Your task to perform on an android device: install app "Google Home" Image 0: 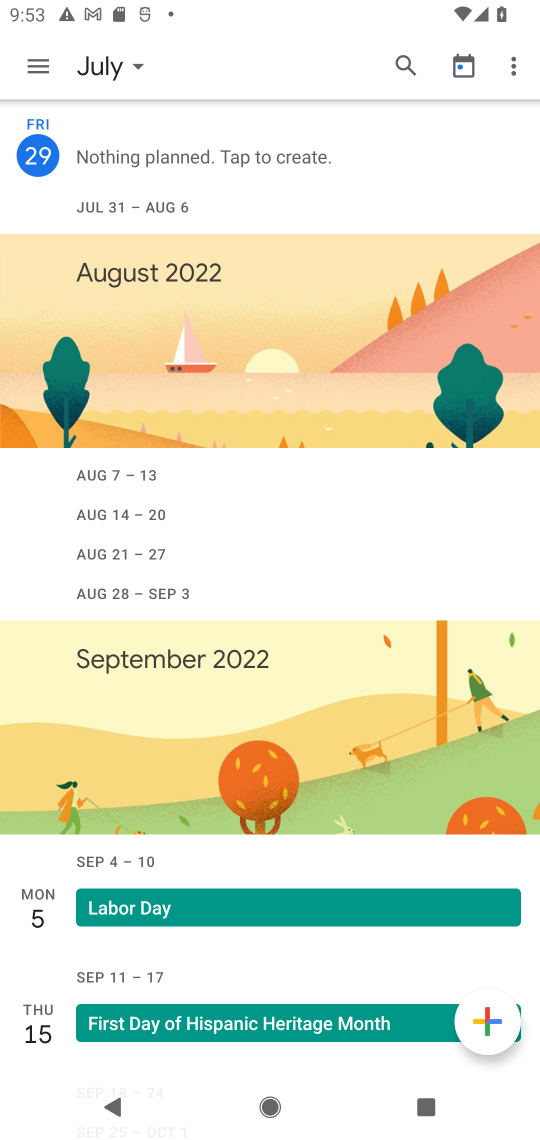
Step 0: press home button
Your task to perform on an android device: install app "Google Home" Image 1: 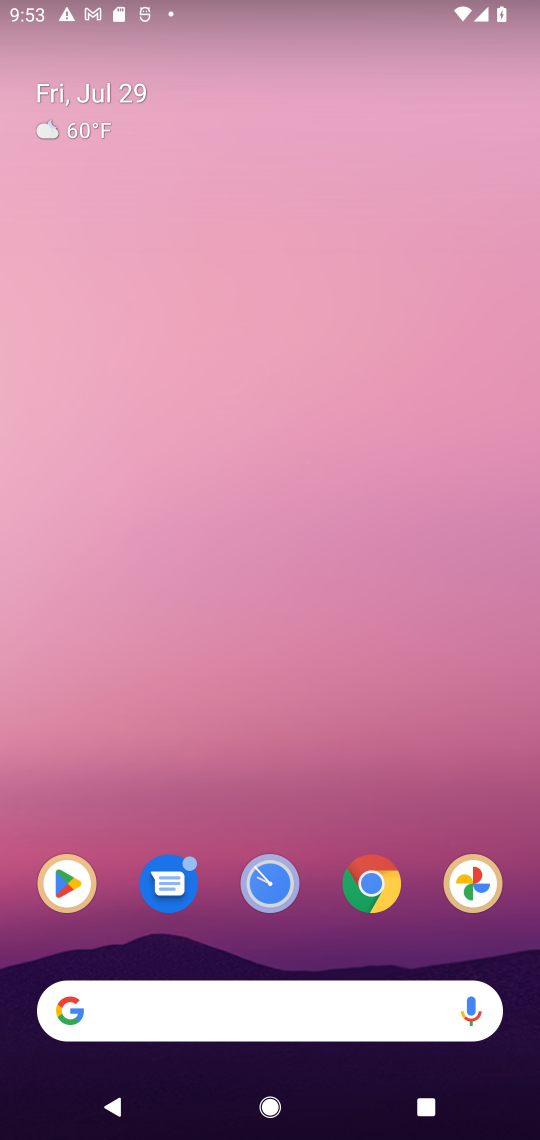
Step 1: click (59, 882)
Your task to perform on an android device: install app "Google Home" Image 2: 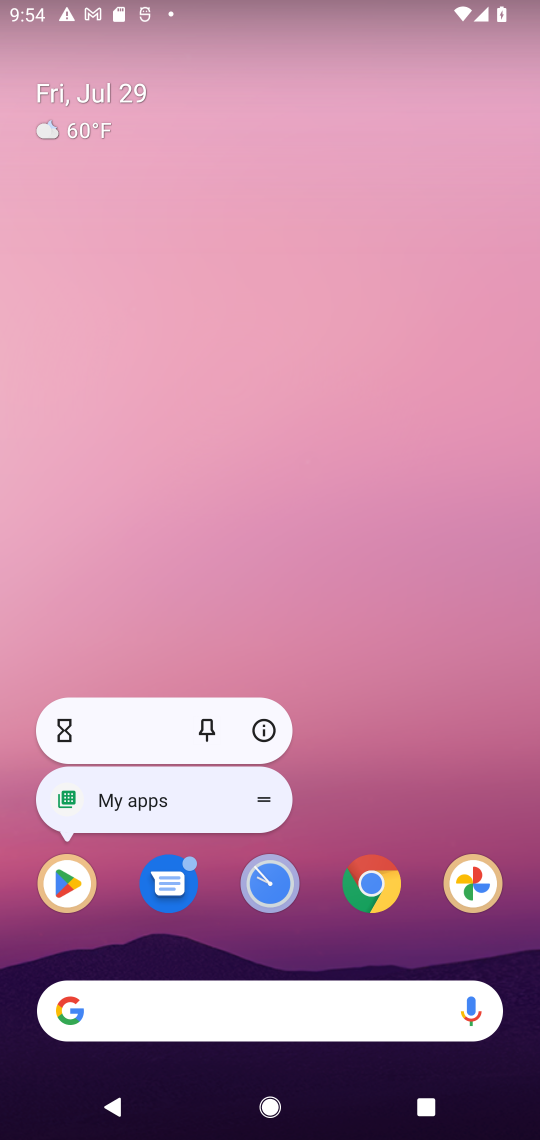
Step 2: click (72, 854)
Your task to perform on an android device: install app "Google Home" Image 3: 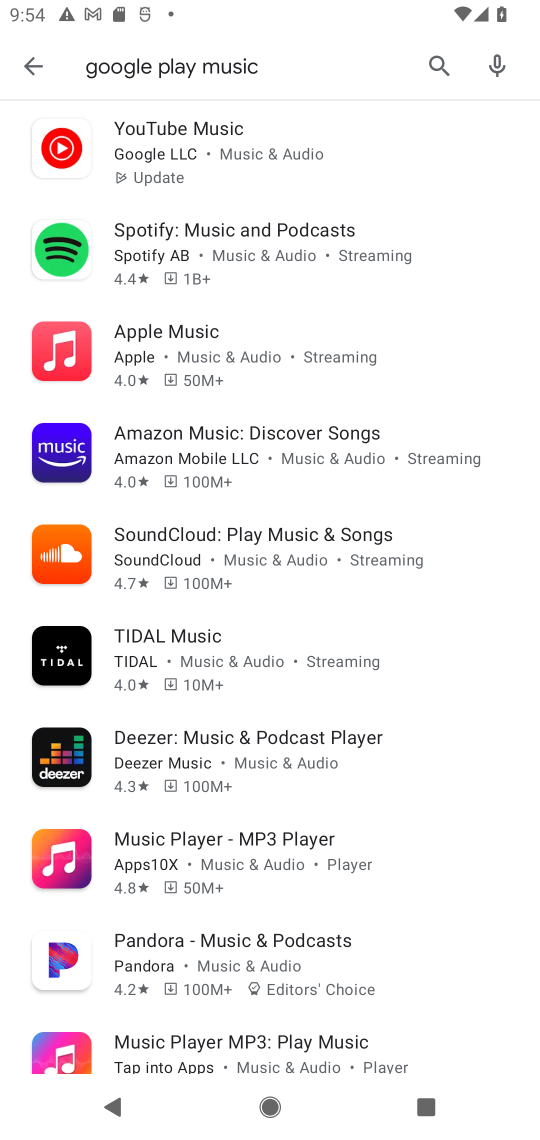
Step 3: click (282, 67)
Your task to perform on an android device: install app "Google Home" Image 4: 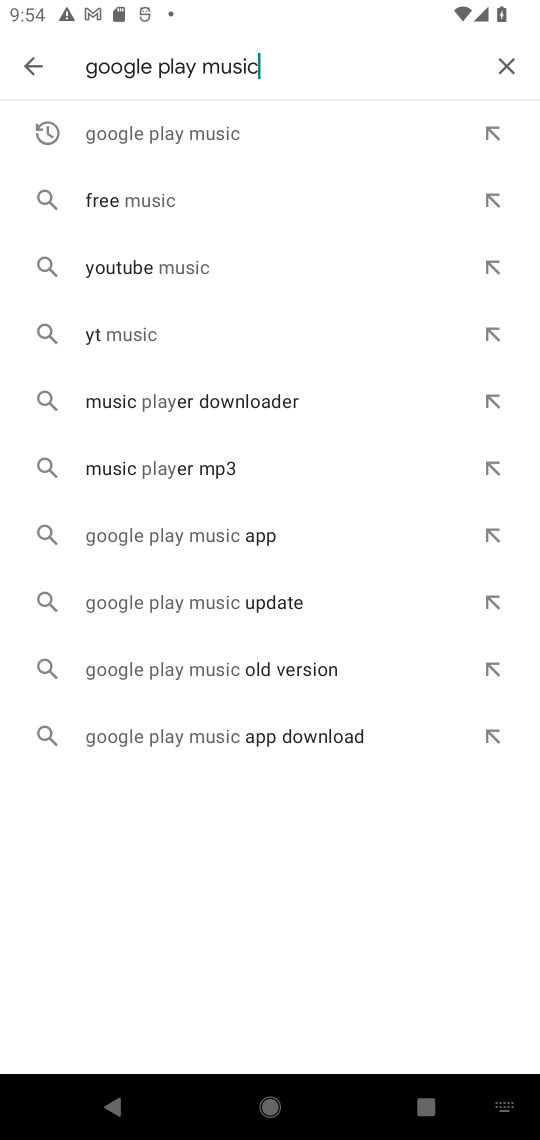
Step 4: click (501, 57)
Your task to perform on an android device: install app "Google Home" Image 5: 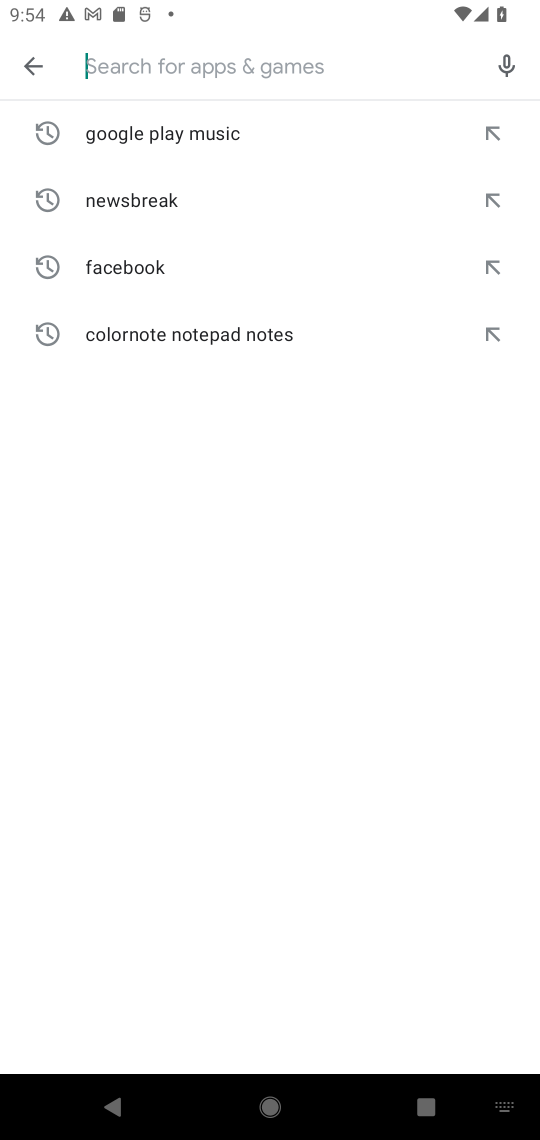
Step 5: type "Google Home"
Your task to perform on an android device: install app "Google Home" Image 6: 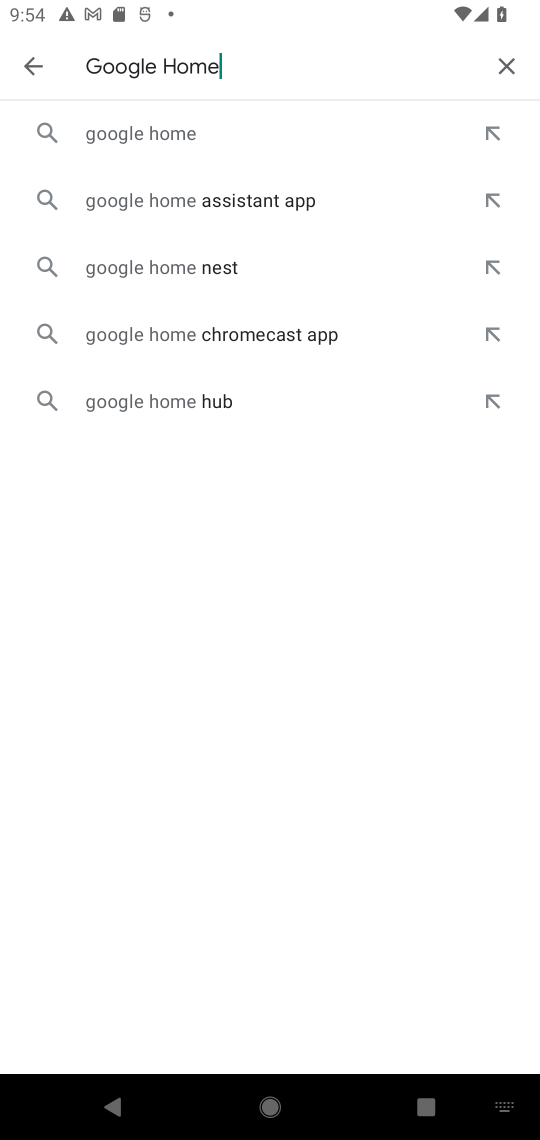
Step 6: click (178, 138)
Your task to perform on an android device: install app "Google Home" Image 7: 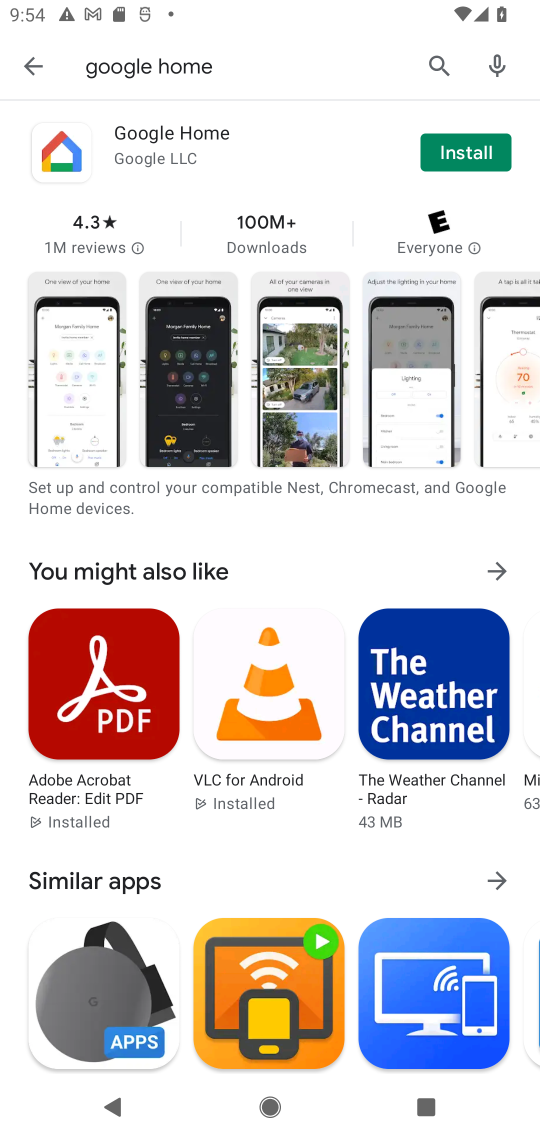
Step 7: click (501, 149)
Your task to perform on an android device: install app "Google Home" Image 8: 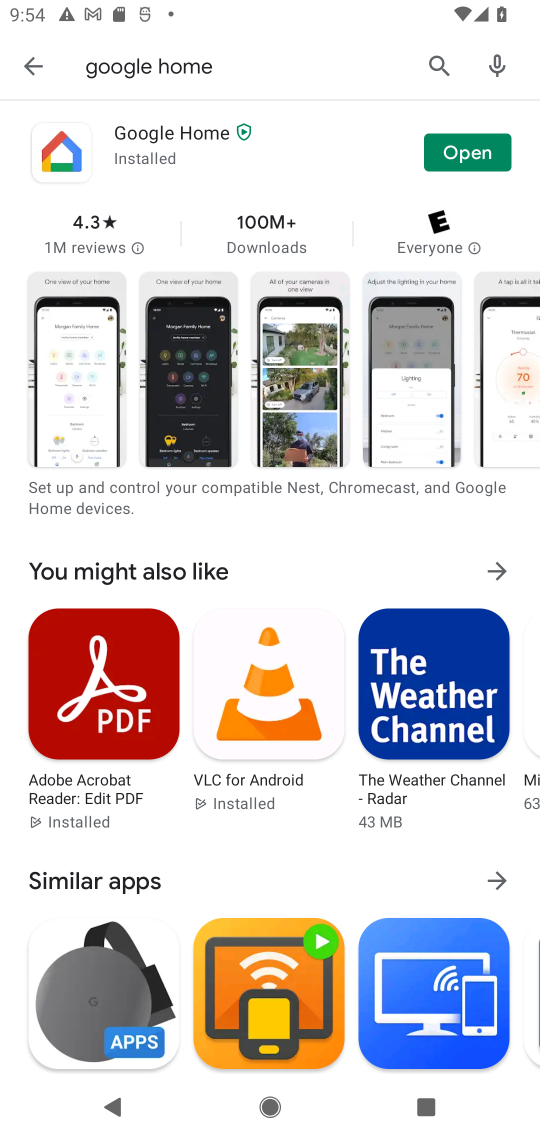
Step 8: task complete